Your task to perform on an android device: Clear the cart on amazon.com. Search for "logitech g pro" on amazon.com, select the first entry, add it to the cart, then select checkout. Image 0: 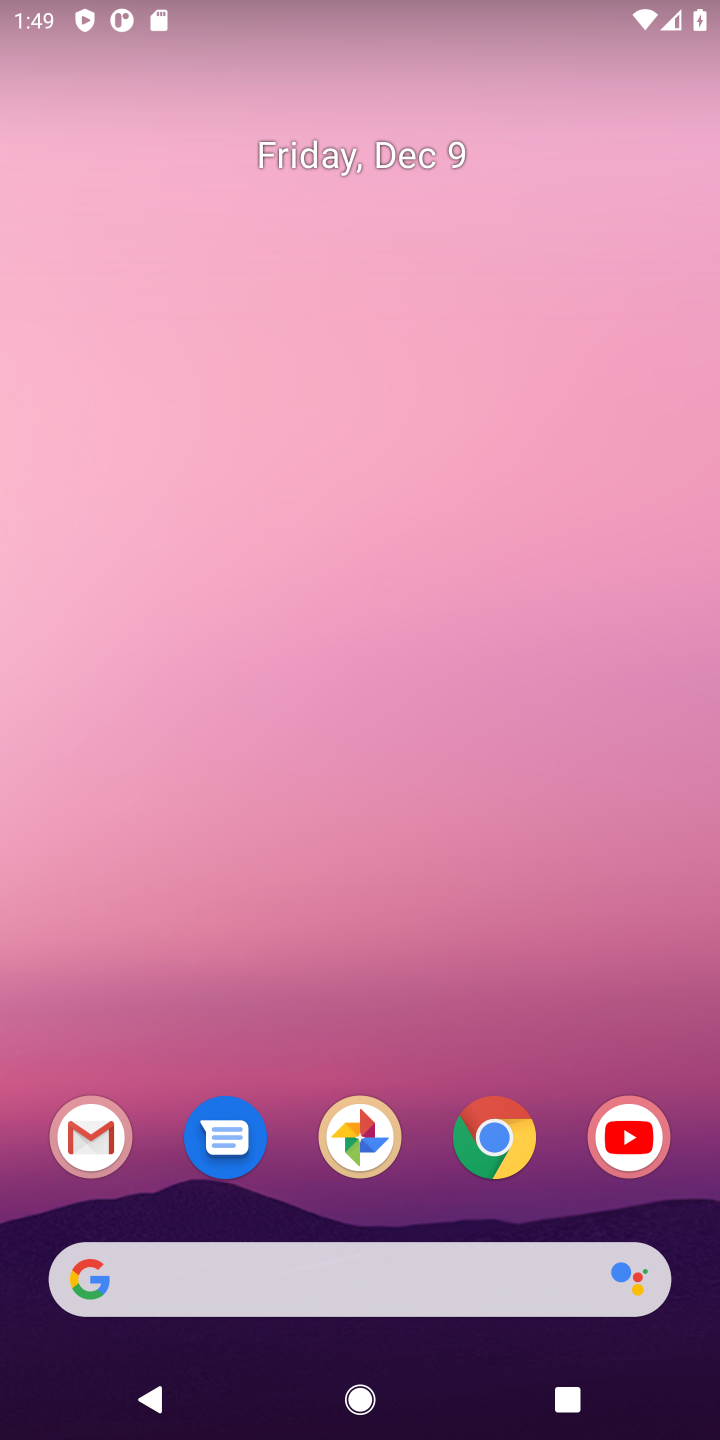
Step 0: click (516, 1121)
Your task to perform on an android device: Clear the cart on amazon.com. Search for "logitech g pro" on amazon.com, select the first entry, add it to the cart, then select checkout. Image 1: 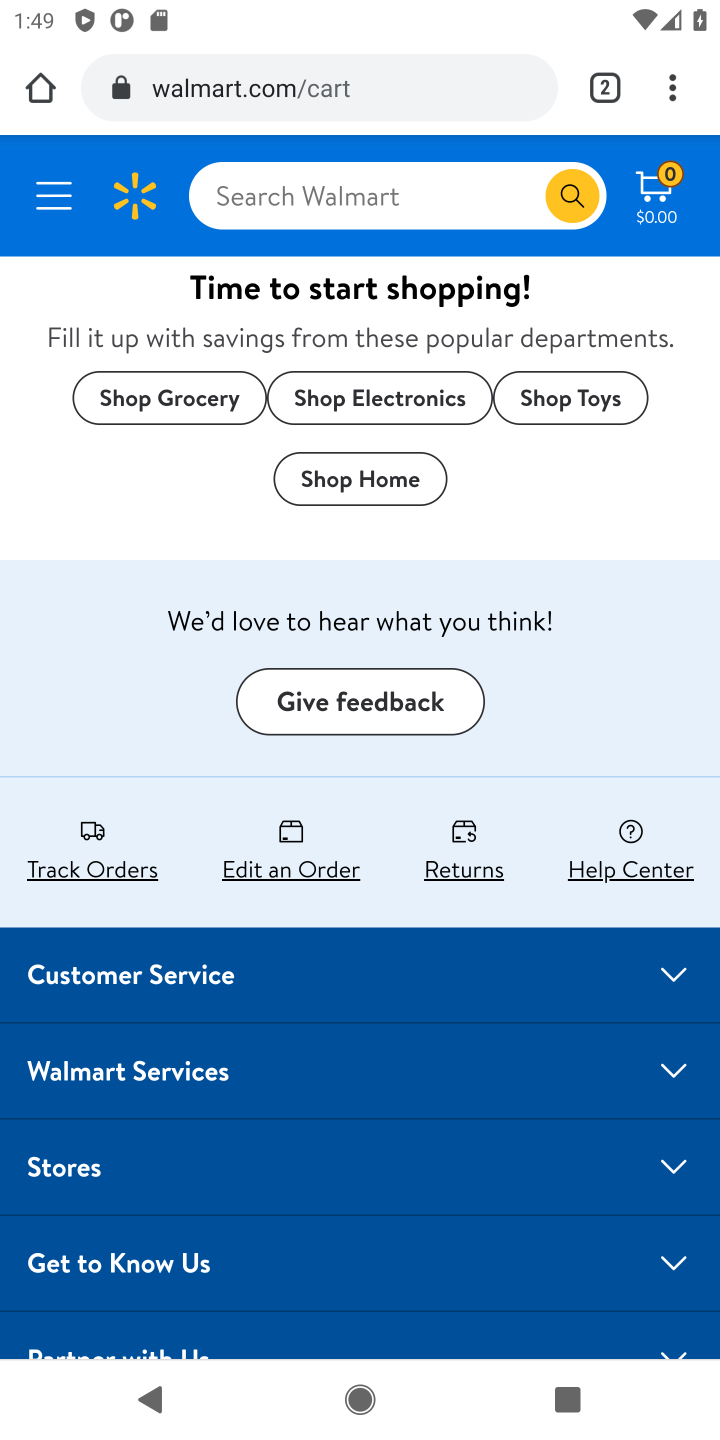
Step 1: click (378, 193)
Your task to perform on an android device: Clear the cart on amazon.com. Search for "logitech g pro" on amazon.com, select the first entry, add it to the cart, then select checkout. Image 2: 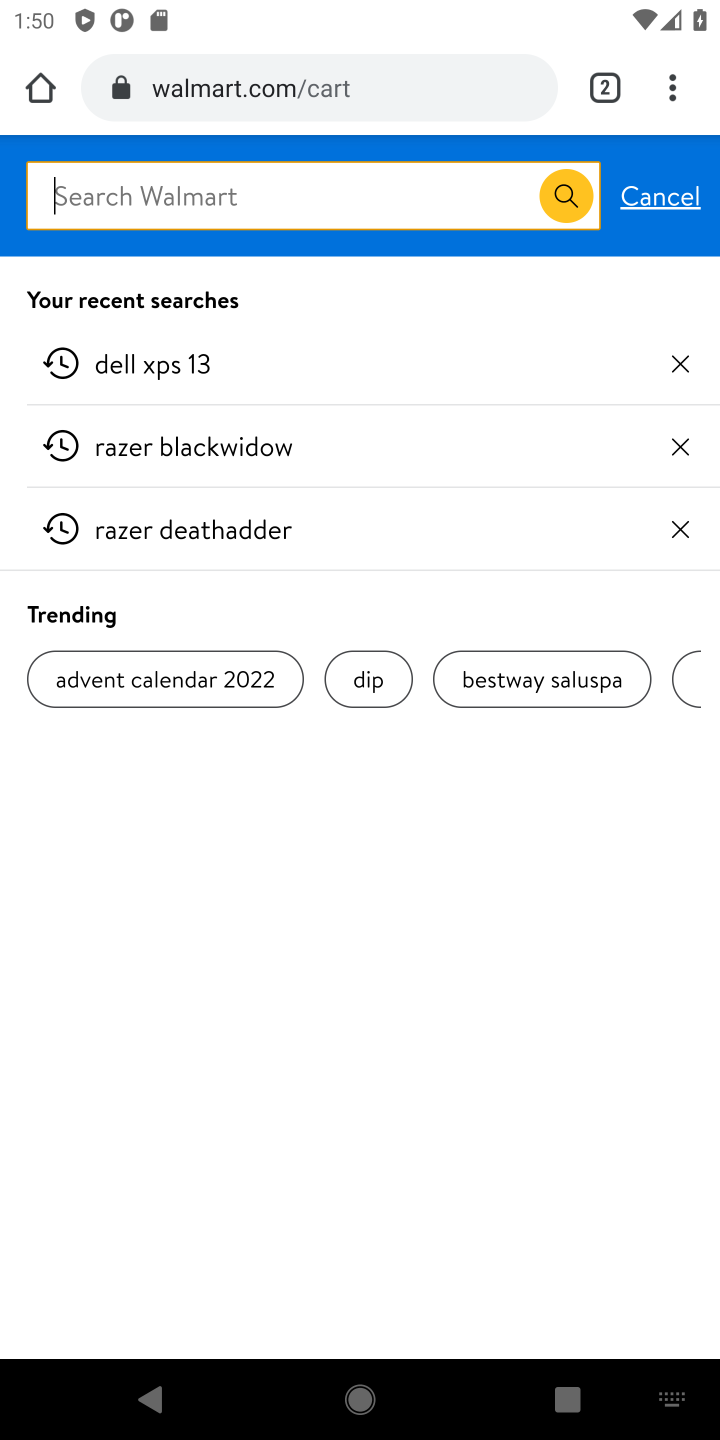
Step 2: type "AMAZON"
Your task to perform on an android device: Clear the cart on amazon.com. Search for "logitech g pro" on amazon.com, select the first entry, add it to the cart, then select checkout. Image 3: 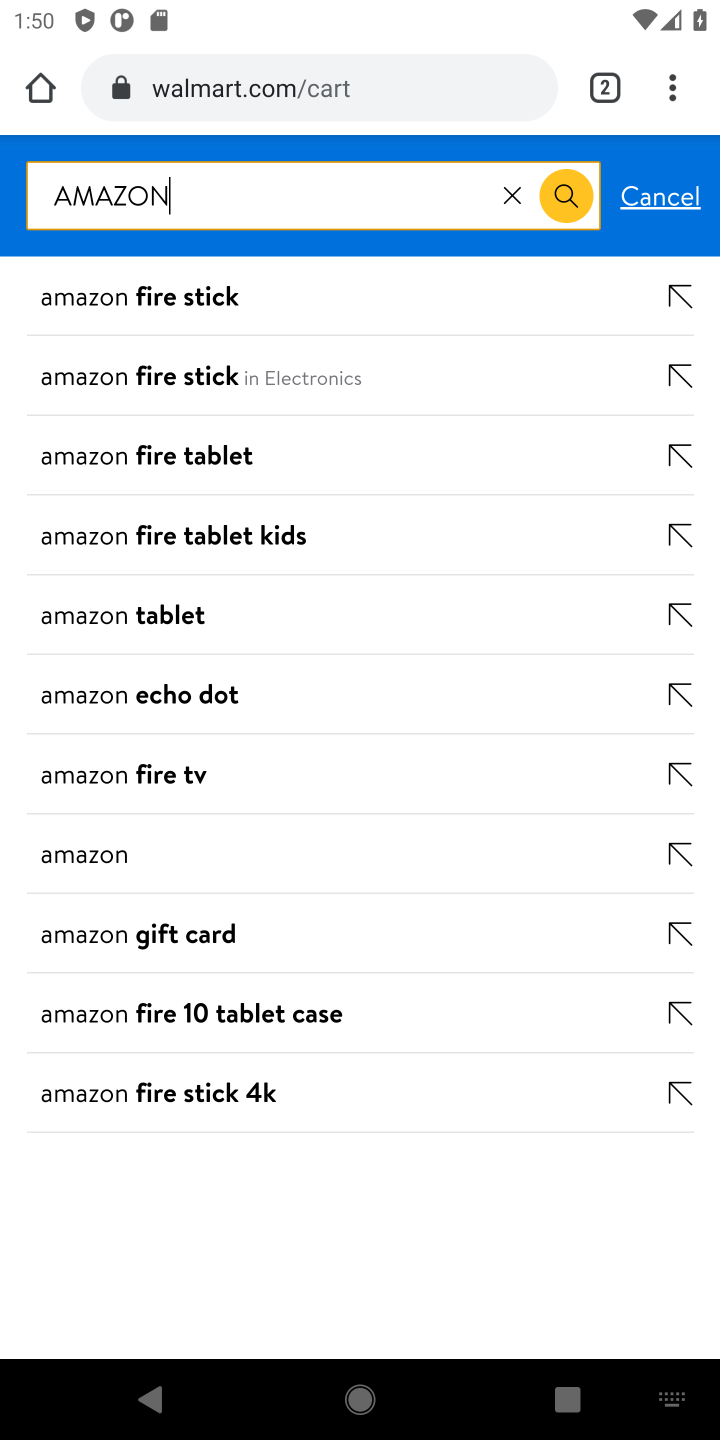
Step 3: click (316, 94)
Your task to perform on an android device: Clear the cart on amazon.com. Search for "logitech g pro" on amazon.com, select the first entry, add it to the cart, then select checkout. Image 4: 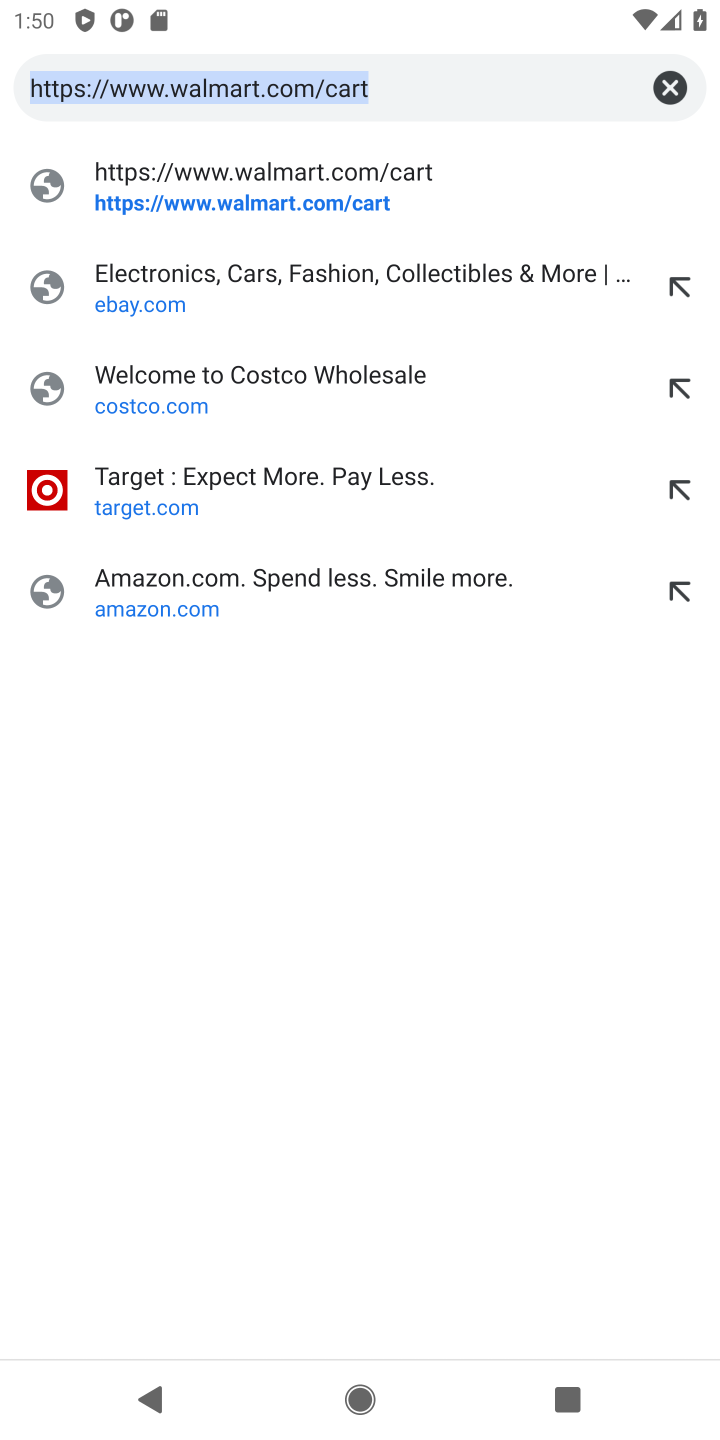
Step 4: click (252, 582)
Your task to perform on an android device: Clear the cart on amazon.com. Search for "logitech g pro" on amazon.com, select the first entry, add it to the cart, then select checkout. Image 5: 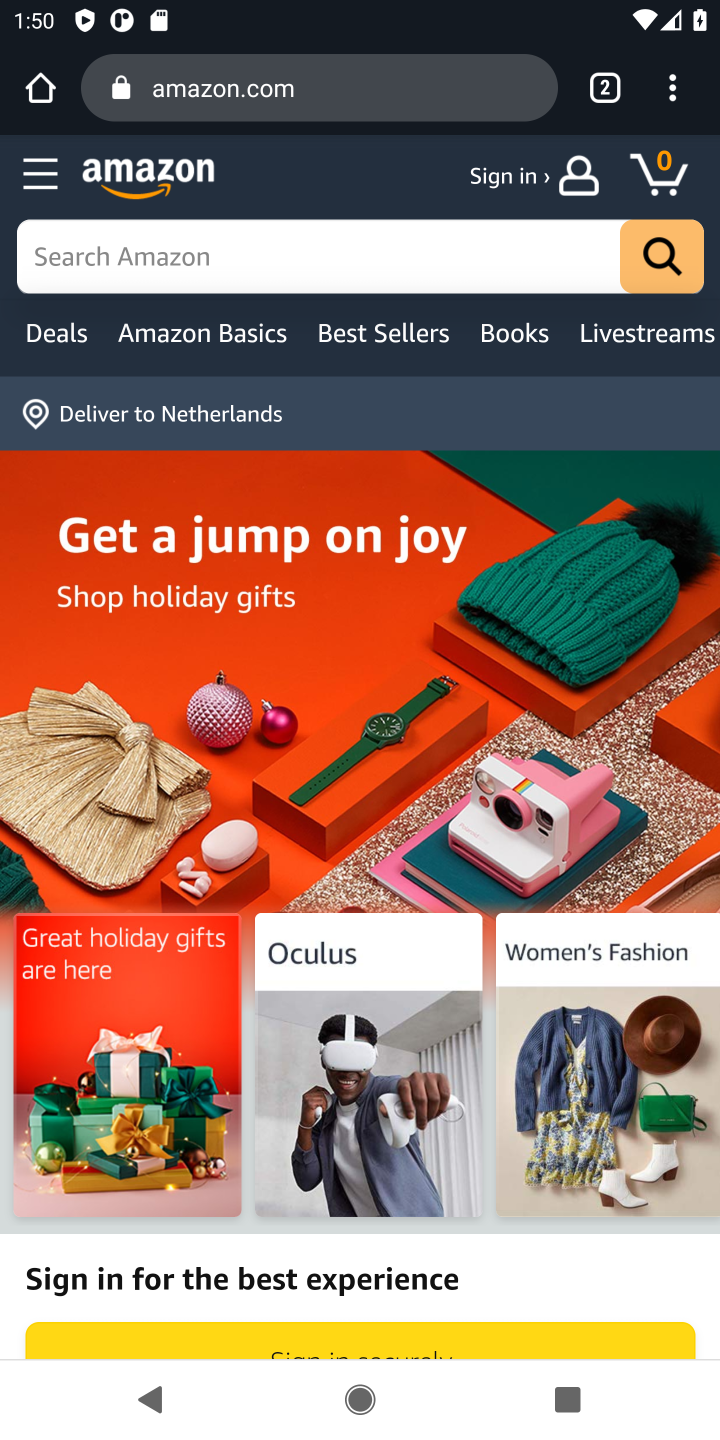
Step 5: click (660, 188)
Your task to perform on an android device: Clear the cart on amazon.com. Search for "logitech g pro" on amazon.com, select the first entry, add it to the cart, then select checkout. Image 6: 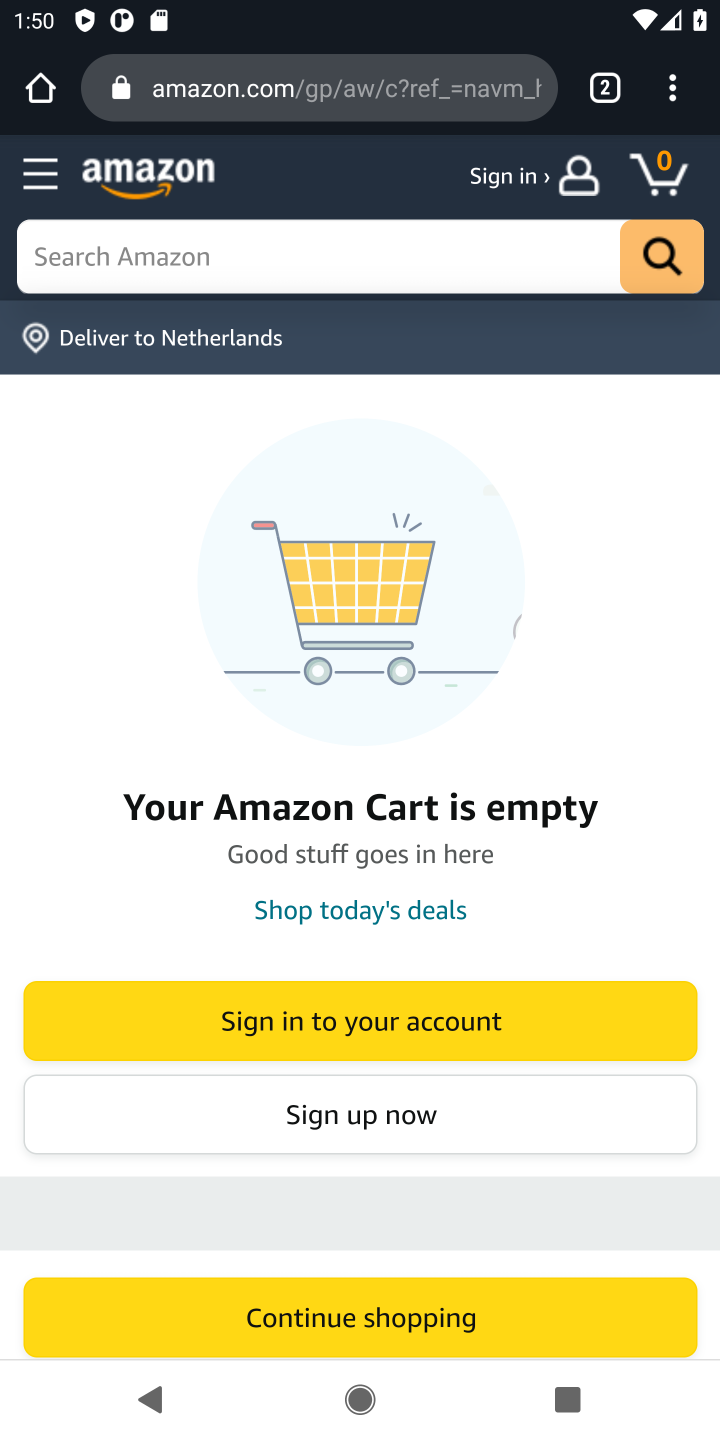
Step 6: click (251, 262)
Your task to perform on an android device: Clear the cart on amazon.com. Search for "logitech g pro" on amazon.com, select the first entry, add it to the cart, then select checkout. Image 7: 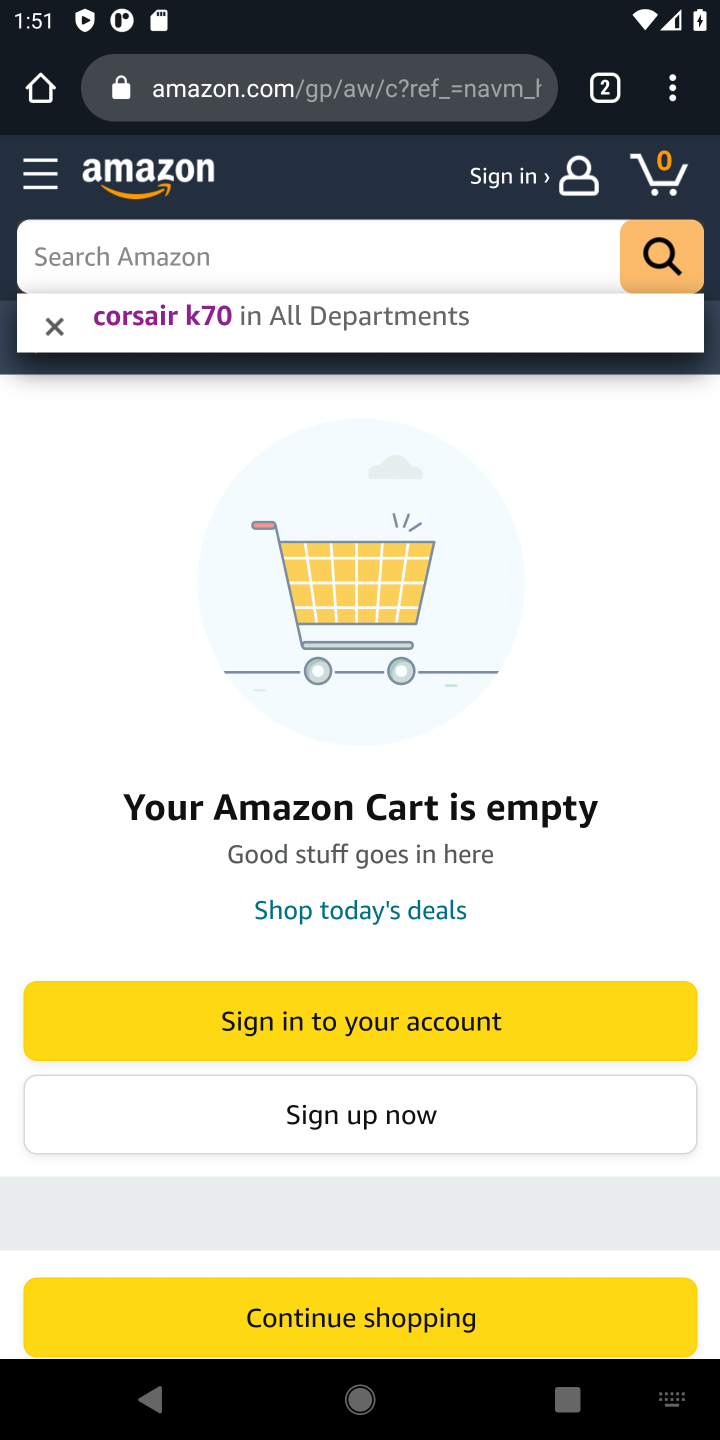
Step 7: type "LOGITECH G PRO"
Your task to perform on an android device: Clear the cart on amazon.com. Search for "logitech g pro" on amazon.com, select the first entry, add it to the cart, then select checkout. Image 8: 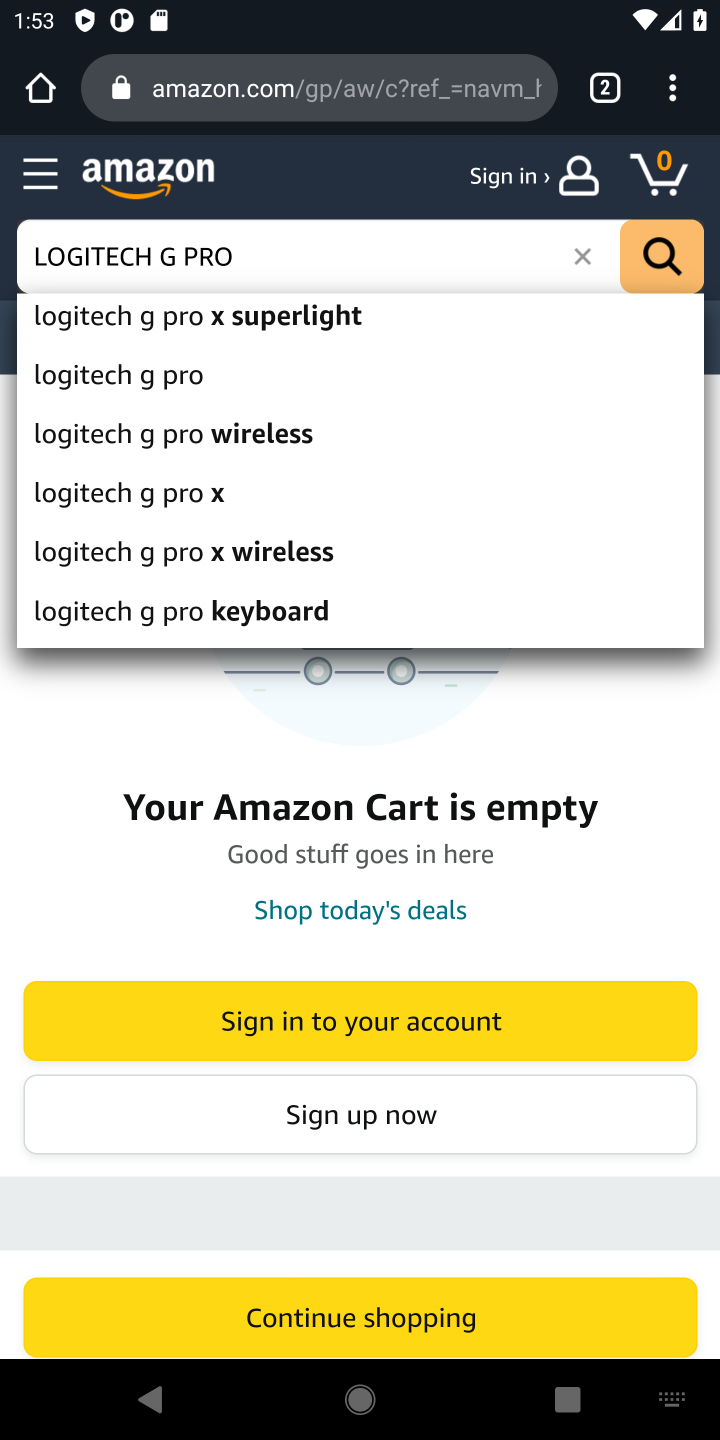
Step 8: click (246, 319)
Your task to perform on an android device: Clear the cart on amazon.com. Search for "logitech g pro" on amazon.com, select the first entry, add it to the cart, then select checkout. Image 9: 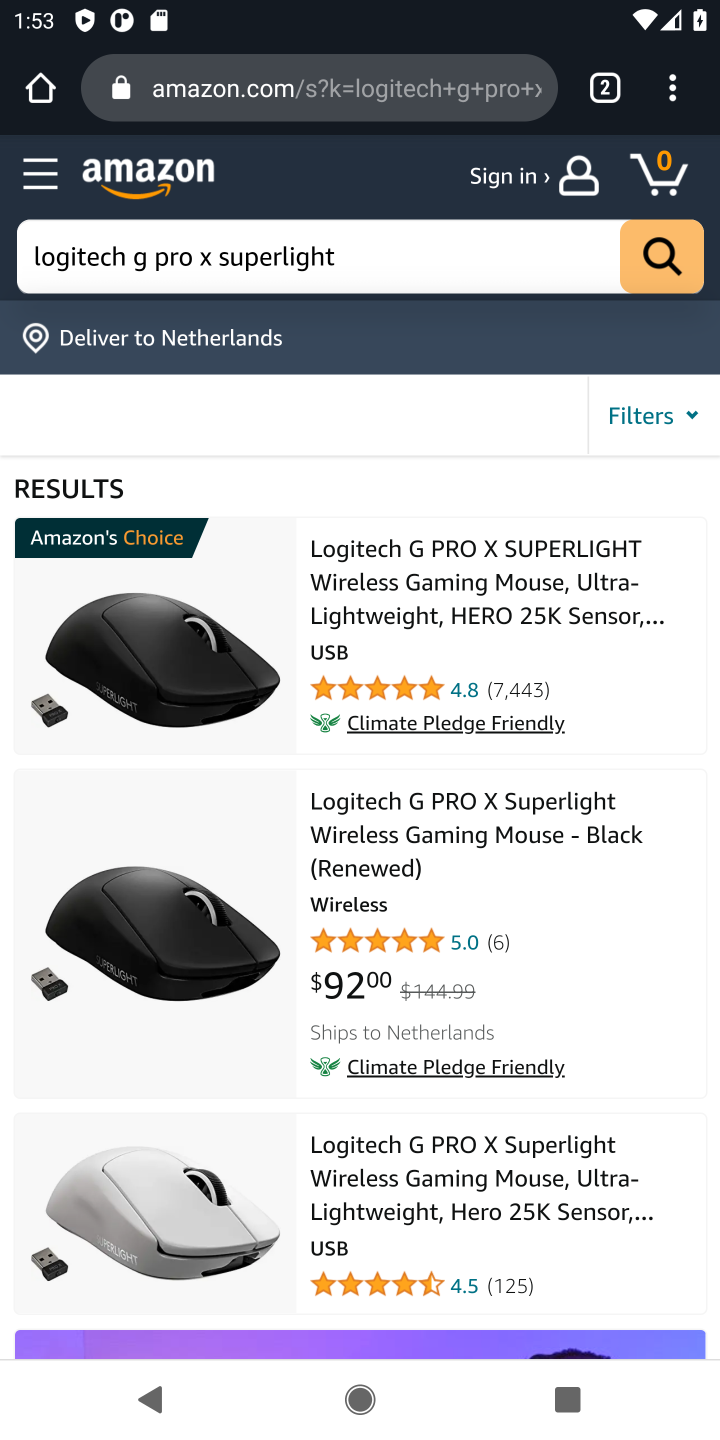
Step 9: click (514, 618)
Your task to perform on an android device: Clear the cart on amazon.com. Search for "logitech g pro" on amazon.com, select the first entry, add it to the cart, then select checkout. Image 10: 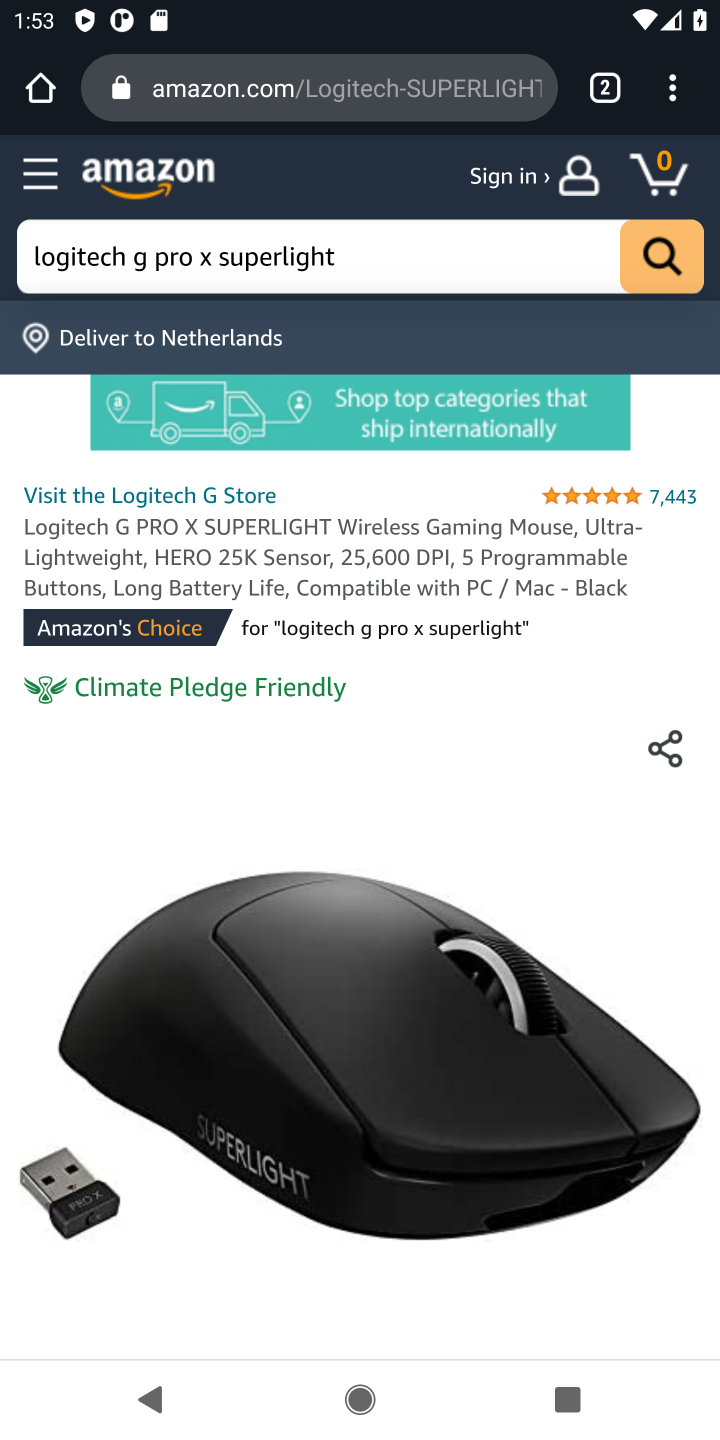
Step 10: task complete